Your task to perform on an android device: Open the web browser Image 0: 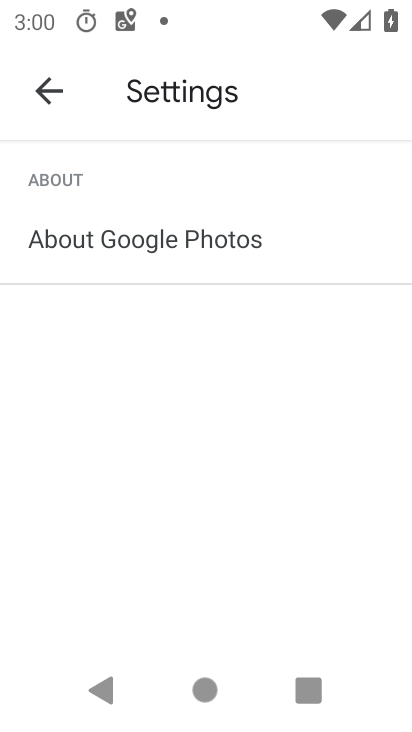
Step 0: press home button
Your task to perform on an android device: Open the web browser Image 1: 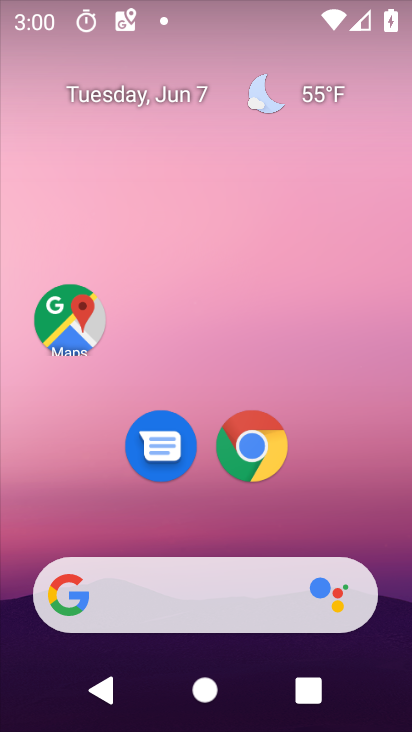
Step 1: click (249, 442)
Your task to perform on an android device: Open the web browser Image 2: 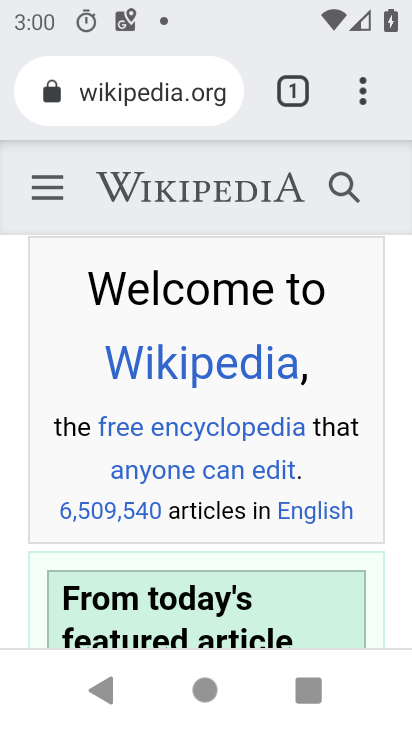
Step 2: task complete